Your task to perform on an android device: turn off data saver in the chrome app Image 0: 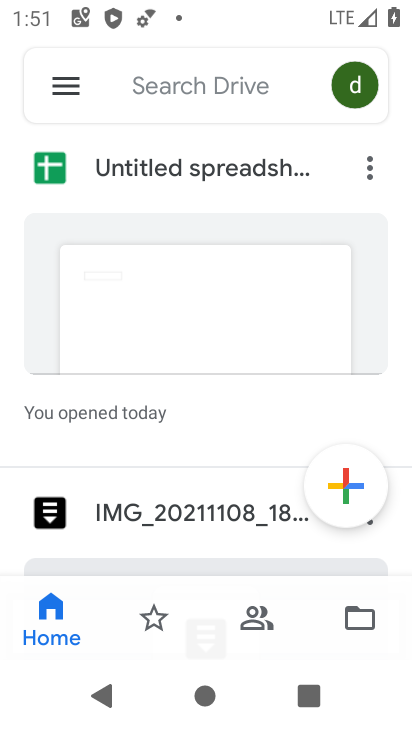
Step 0: press home button
Your task to perform on an android device: turn off data saver in the chrome app Image 1: 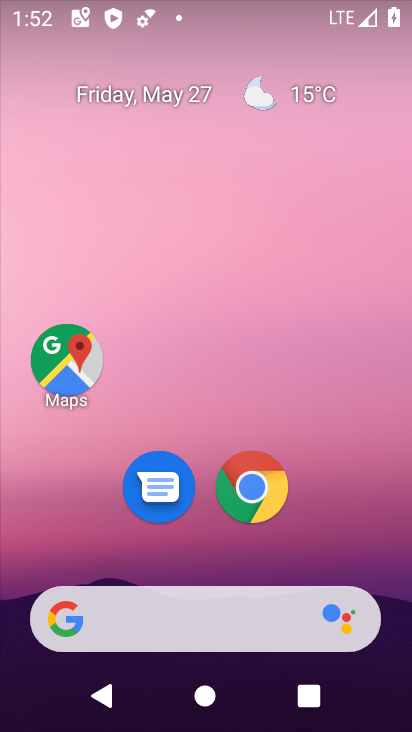
Step 1: drag from (291, 504) to (298, 81)
Your task to perform on an android device: turn off data saver in the chrome app Image 2: 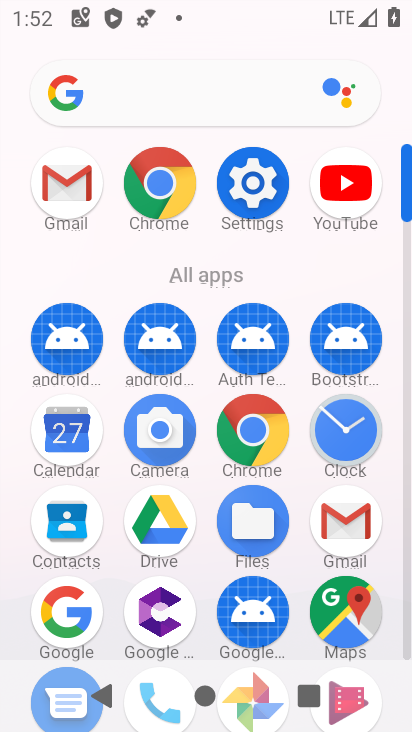
Step 2: click (248, 428)
Your task to perform on an android device: turn off data saver in the chrome app Image 3: 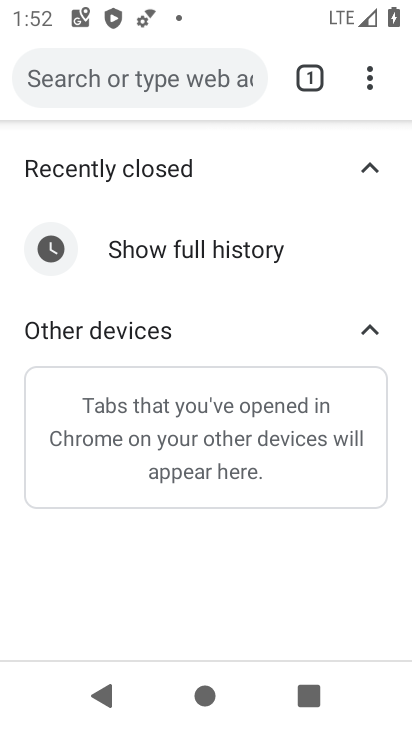
Step 3: drag from (337, 118) to (269, 327)
Your task to perform on an android device: turn off data saver in the chrome app Image 4: 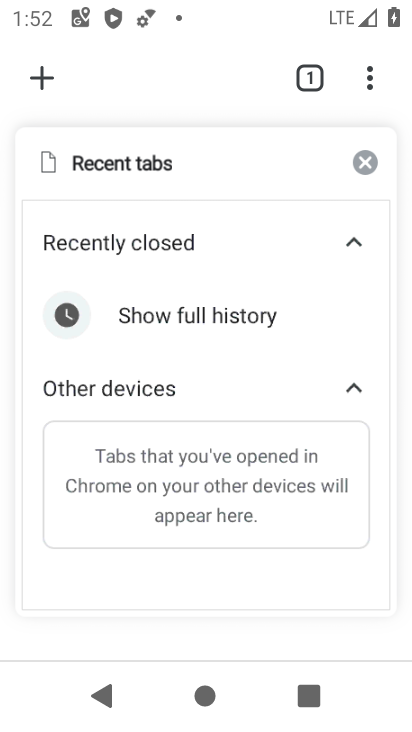
Step 4: drag from (365, 65) to (179, 356)
Your task to perform on an android device: turn off data saver in the chrome app Image 5: 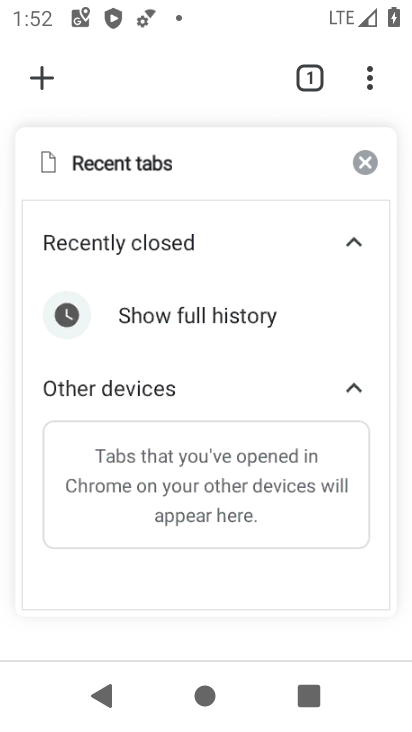
Step 5: press back button
Your task to perform on an android device: turn off data saver in the chrome app Image 6: 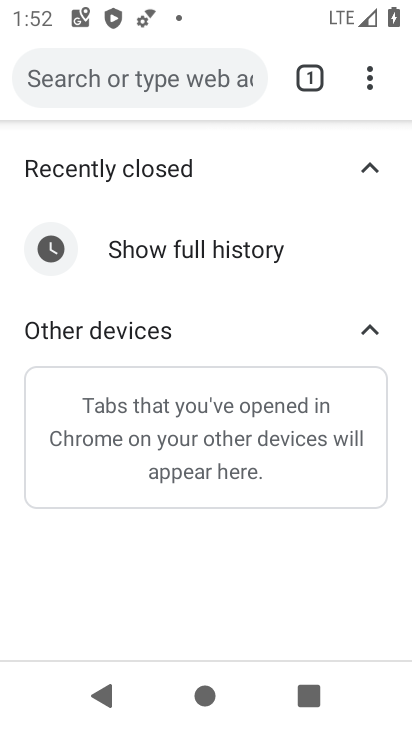
Step 6: drag from (368, 64) to (291, 529)
Your task to perform on an android device: turn off data saver in the chrome app Image 7: 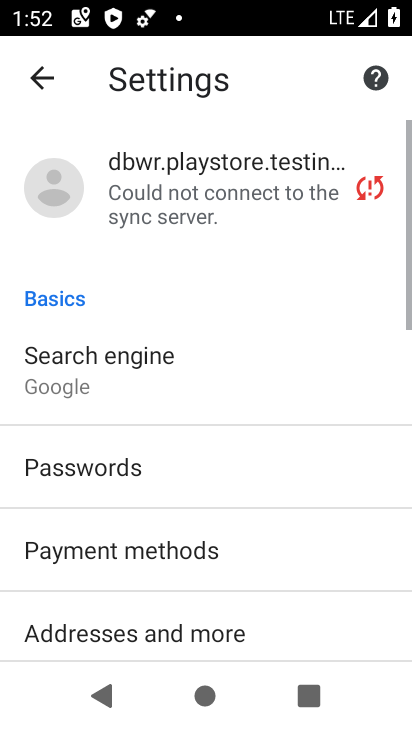
Step 7: drag from (261, 539) to (228, 42)
Your task to perform on an android device: turn off data saver in the chrome app Image 8: 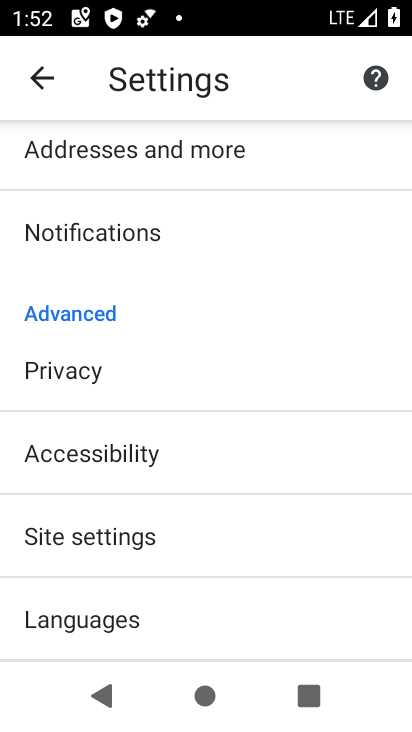
Step 8: drag from (259, 542) to (262, 244)
Your task to perform on an android device: turn off data saver in the chrome app Image 9: 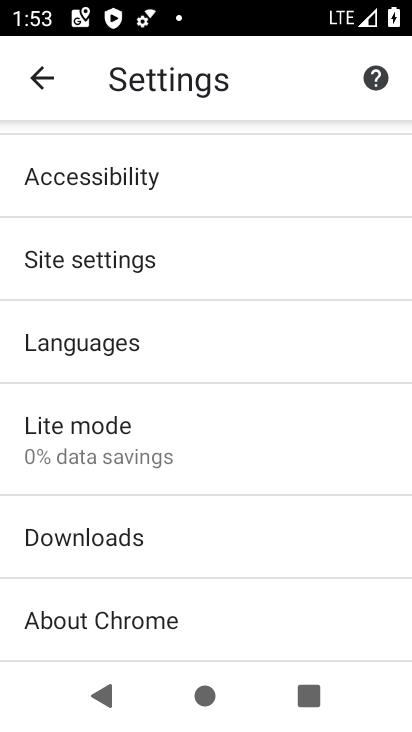
Step 9: click (75, 411)
Your task to perform on an android device: turn off data saver in the chrome app Image 10: 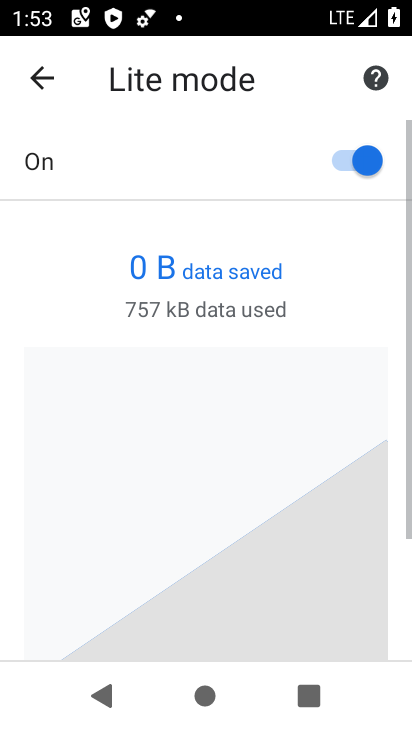
Step 10: click (347, 147)
Your task to perform on an android device: turn off data saver in the chrome app Image 11: 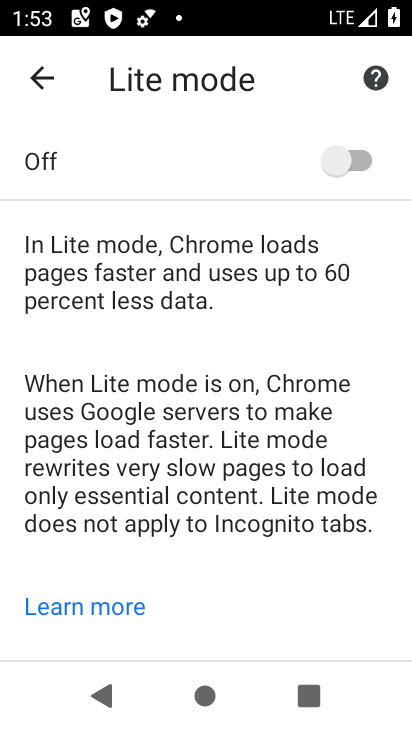
Step 11: task complete